Your task to perform on an android device: change alarm snooze length Image 0: 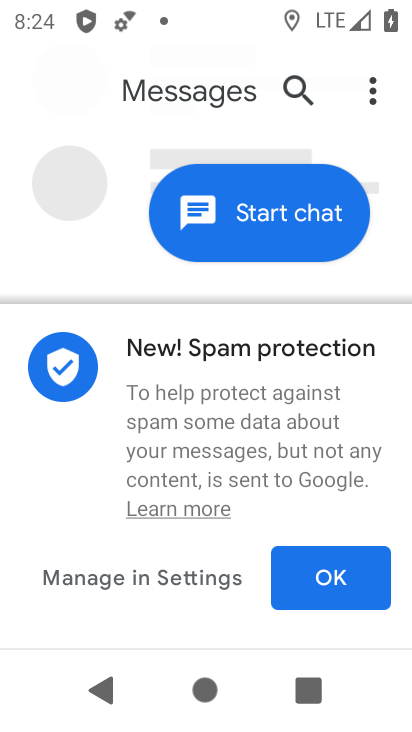
Step 0: press home button
Your task to perform on an android device: change alarm snooze length Image 1: 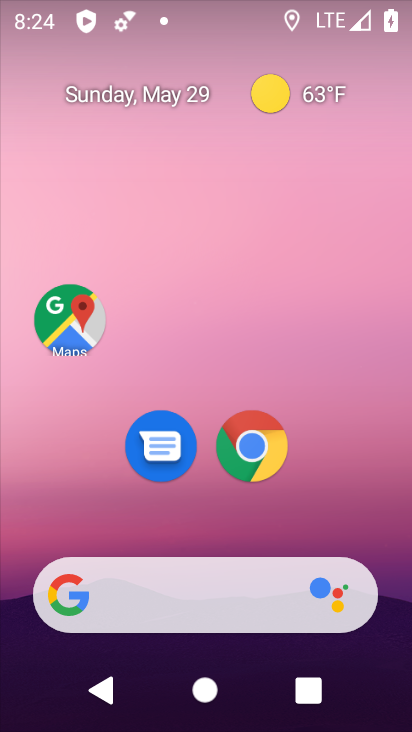
Step 1: drag from (212, 491) to (223, 155)
Your task to perform on an android device: change alarm snooze length Image 2: 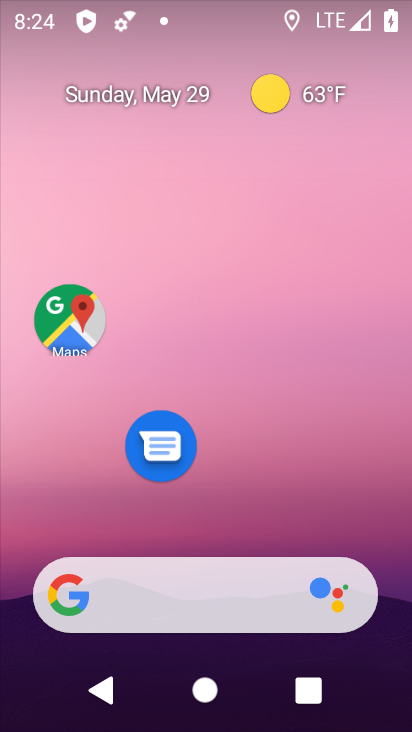
Step 2: drag from (218, 538) to (190, 129)
Your task to perform on an android device: change alarm snooze length Image 3: 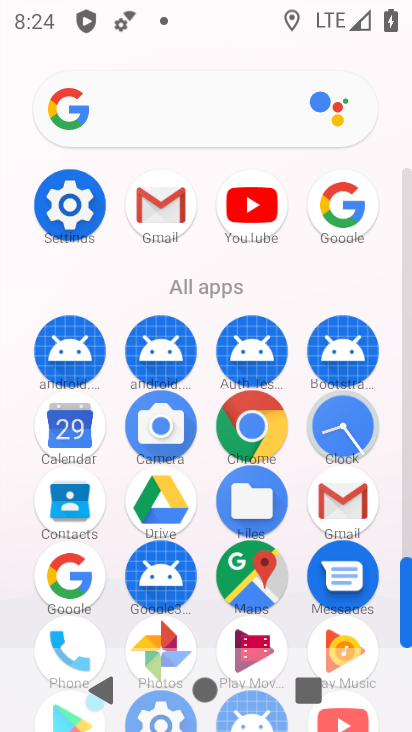
Step 3: click (343, 418)
Your task to perform on an android device: change alarm snooze length Image 4: 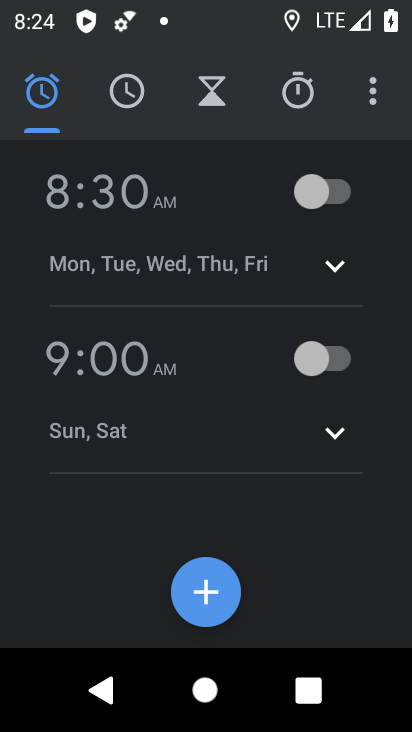
Step 4: click (374, 94)
Your task to perform on an android device: change alarm snooze length Image 5: 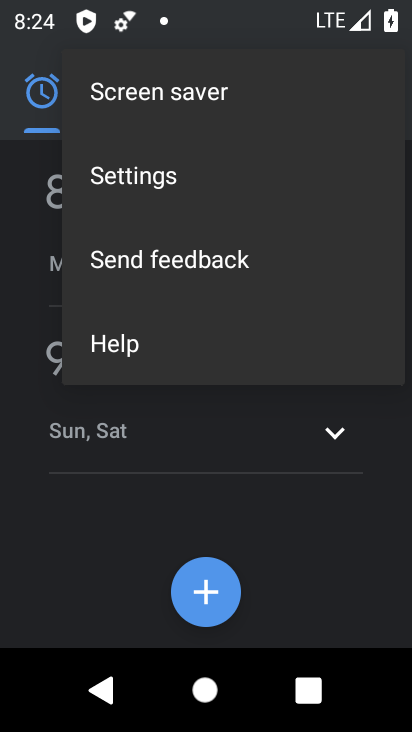
Step 5: click (241, 173)
Your task to perform on an android device: change alarm snooze length Image 6: 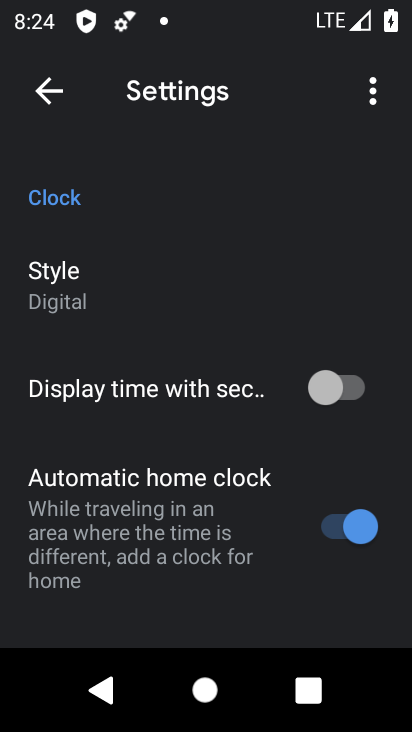
Step 6: drag from (138, 254) to (172, 193)
Your task to perform on an android device: change alarm snooze length Image 7: 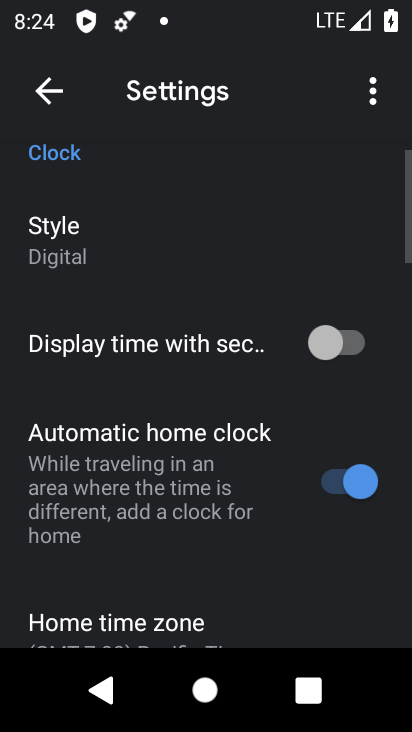
Step 7: drag from (190, 452) to (176, 219)
Your task to perform on an android device: change alarm snooze length Image 8: 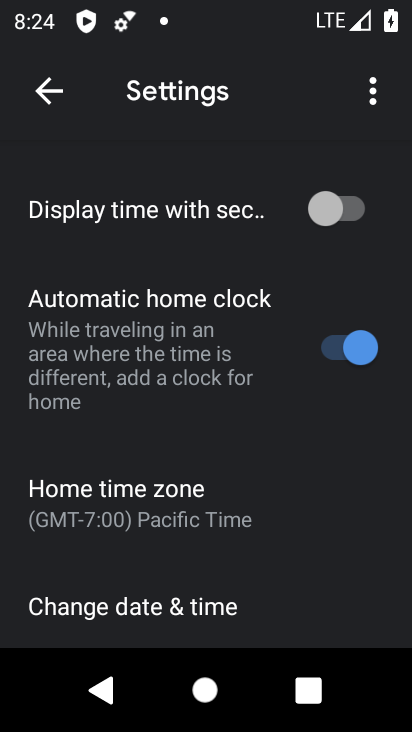
Step 8: drag from (219, 462) to (229, 283)
Your task to perform on an android device: change alarm snooze length Image 9: 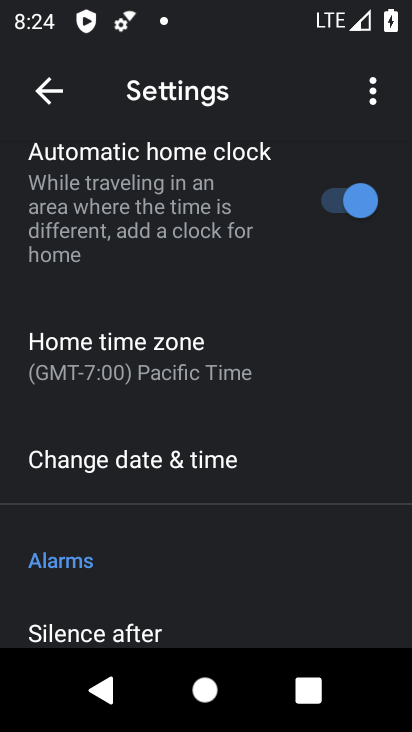
Step 9: drag from (226, 507) to (251, 287)
Your task to perform on an android device: change alarm snooze length Image 10: 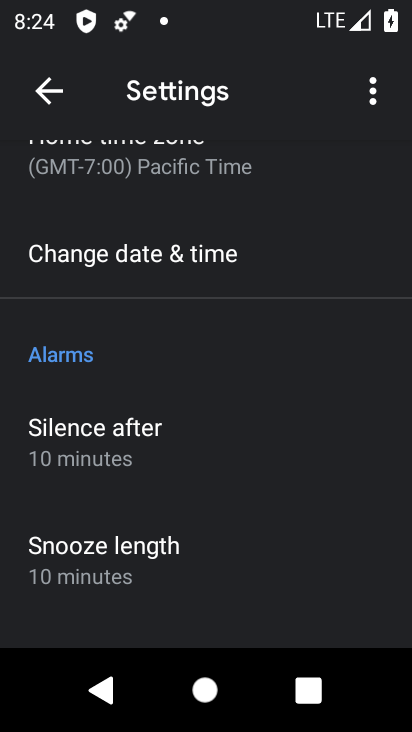
Step 10: drag from (216, 479) to (208, 417)
Your task to perform on an android device: change alarm snooze length Image 11: 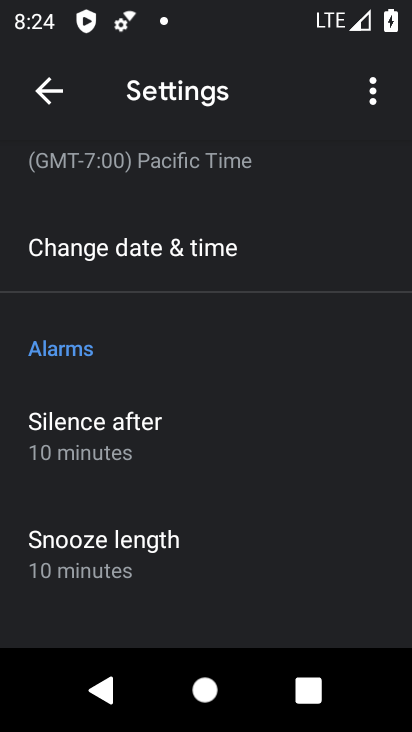
Step 11: click (166, 533)
Your task to perform on an android device: change alarm snooze length Image 12: 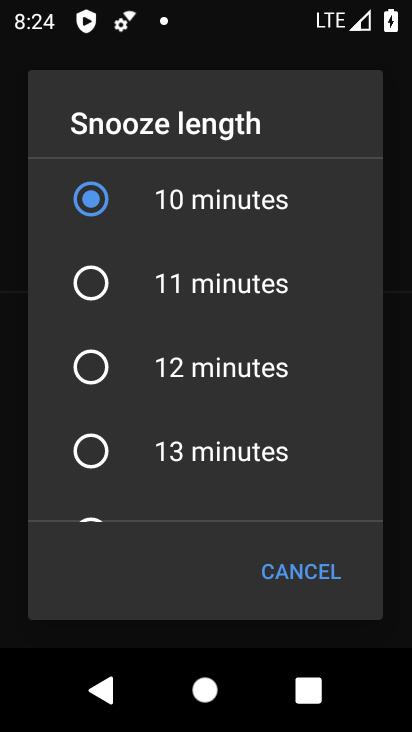
Step 12: click (143, 441)
Your task to perform on an android device: change alarm snooze length Image 13: 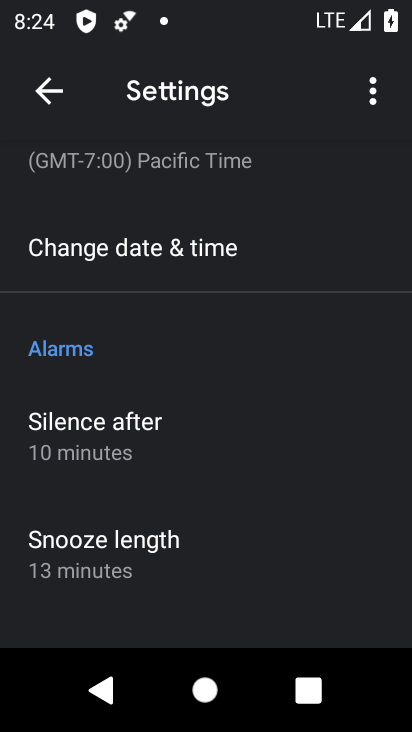
Step 13: task complete